Your task to perform on an android device: Open Amazon Image 0: 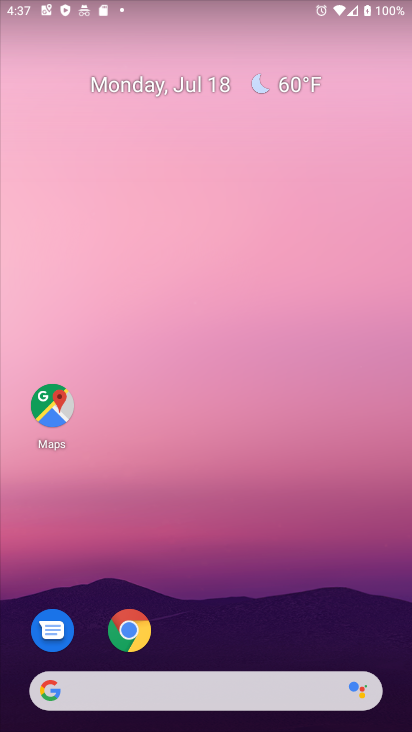
Step 0: drag from (265, 516) to (254, 223)
Your task to perform on an android device: Open Amazon Image 1: 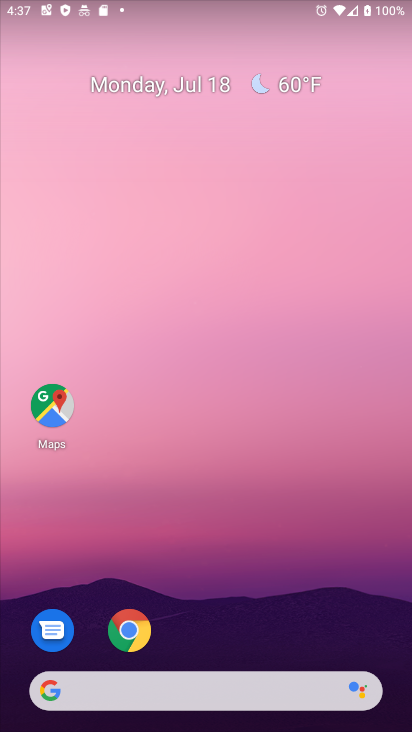
Step 1: drag from (266, 649) to (330, 150)
Your task to perform on an android device: Open Amazon Image 2: 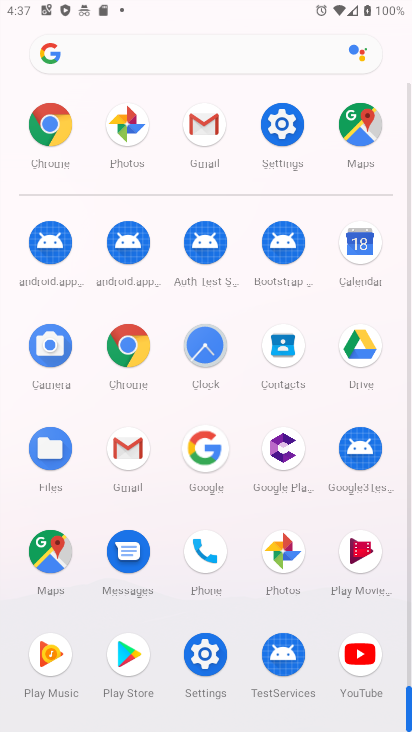
Step 2: drag from (245, 639) to (133, 26)
Your task to perform on an android device: Open Amazon Image 3: 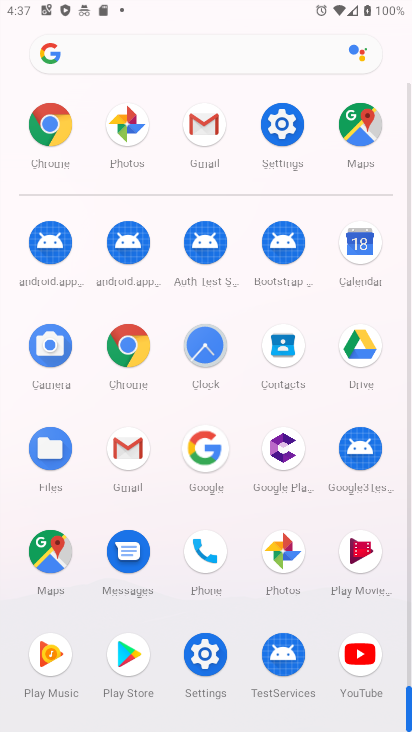
Step 3: click (47, 117)
Your task to perform on an android device: Open Amazon Image 4: 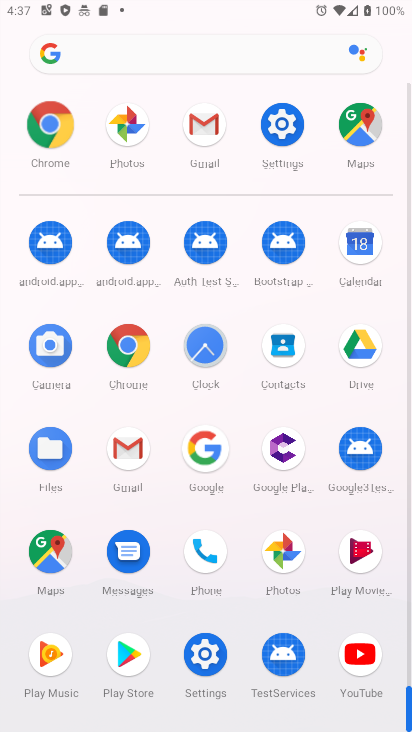
Step 4: click (48, 117)
Your task to perform on an android device: Open Amazon Image 5: 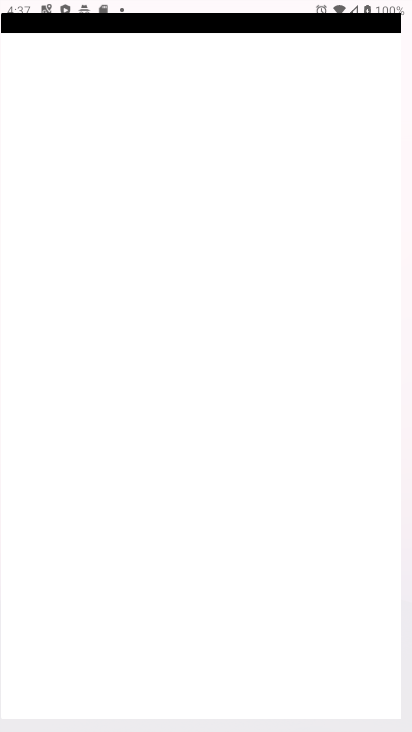
Step 5: click (49, 117)
Your task to perform on an android device: Open Amazon Image 6: 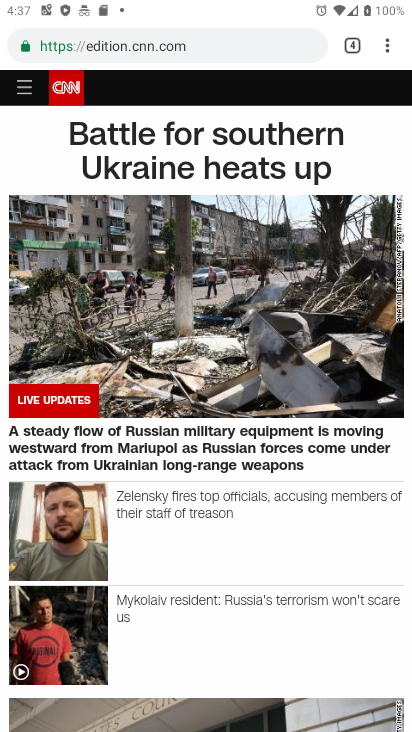
Step 6: task complete